Your task to perform on an android device: Open ESPN.com Image 0: 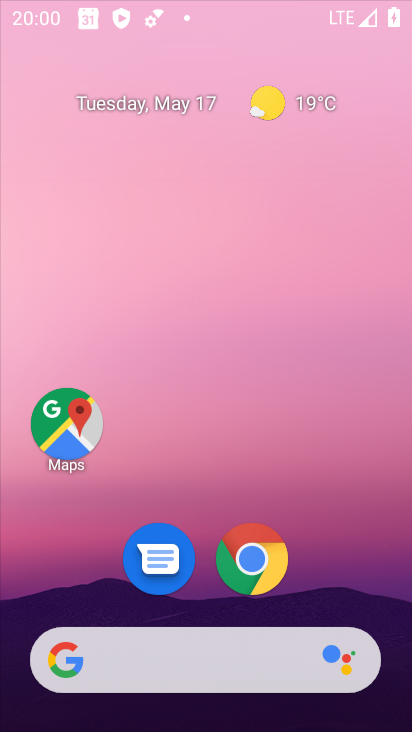
Step 0: drag from (210, 599) to (251, 305)
Your task to perform on an android device: Open ESPN.com Image 1: 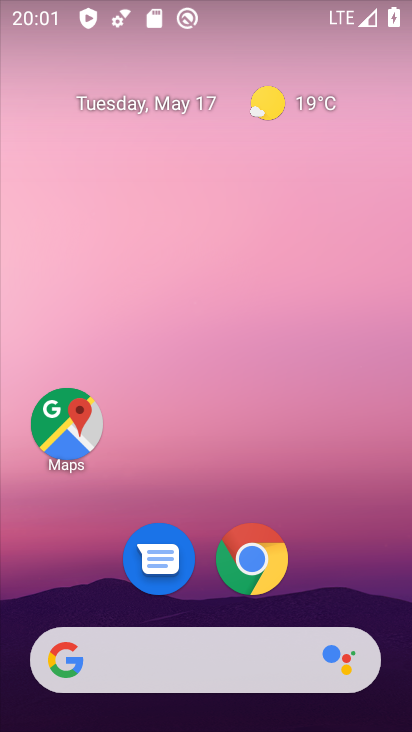
Step 1: drag from (212, 634) to (238, 275)
Your task to perform on an android device: Open ESPN.com Image 2: 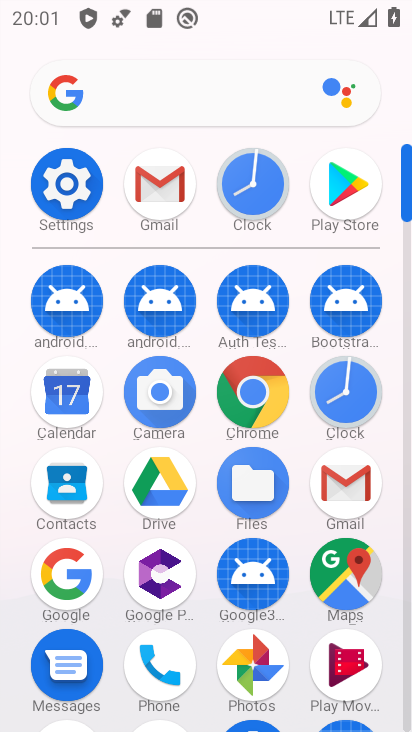
Step 2: click (136, 106)
Your task to perform on an android device: Open ESPN.com Image 3: 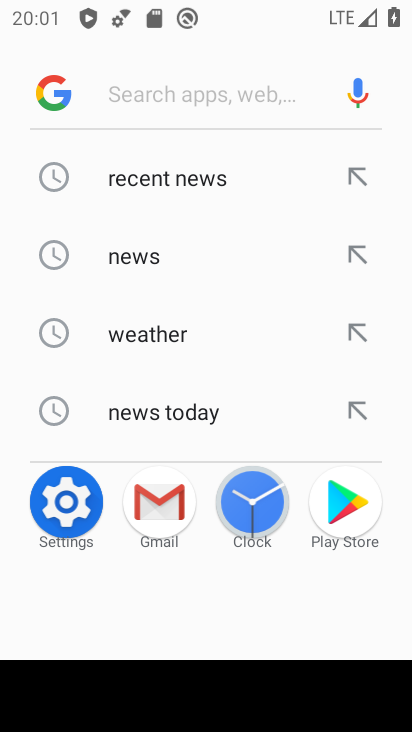
Step 3: type "espn"
Your task to perform on an android device: Open ESPN.com Image 4: 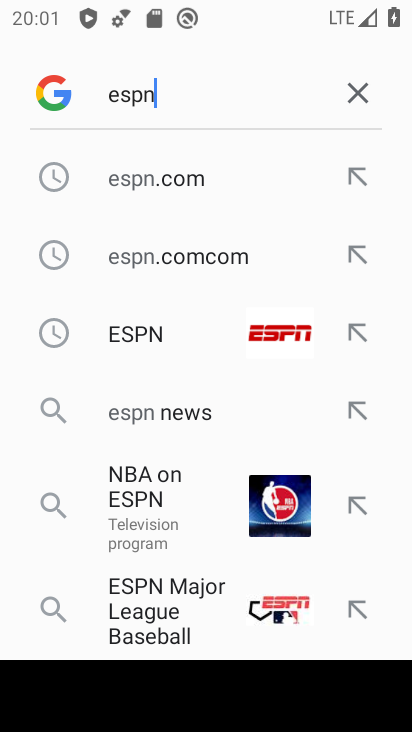
Step 4: click (107, 358)
Your task to perform on an android device: Open ESPN.com Image 5: 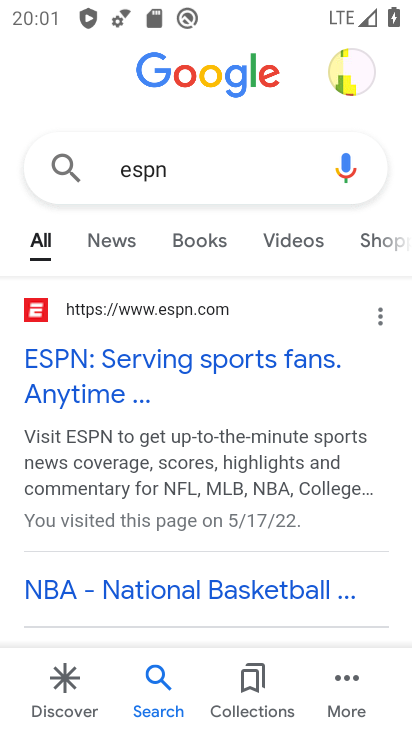
Step 5: click (72, 377)
Your task to perform on an android device: Open ESPN.com Image 6: 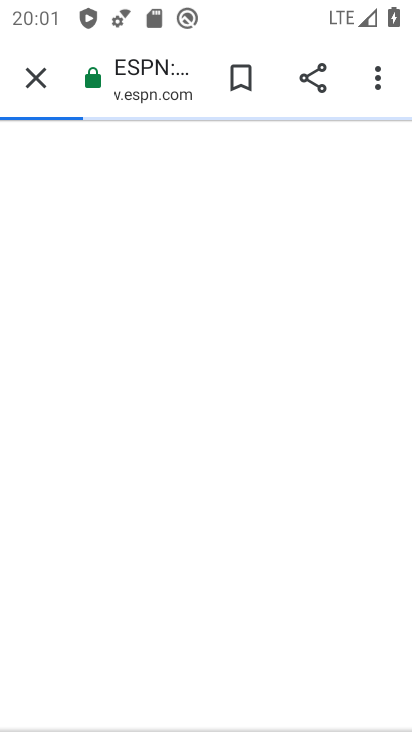
Step 6: task complete